Your task to perform on an android device: turn on priority inbox in the gmail app Image 0: 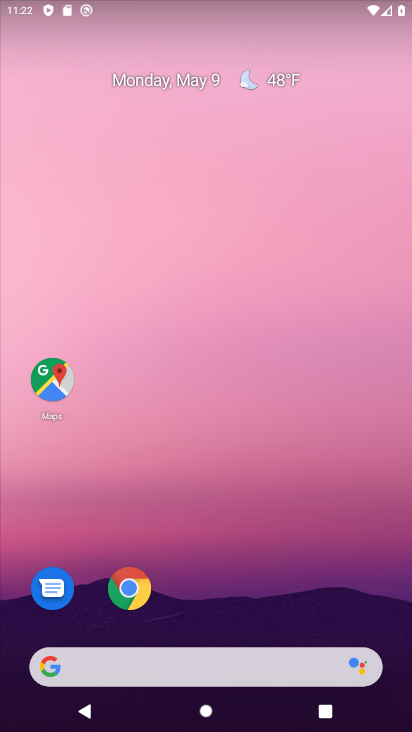
Step 0: click (317, 262)
Your task to perform on an android device: turn on priority inbox in the gmail app Image 1: 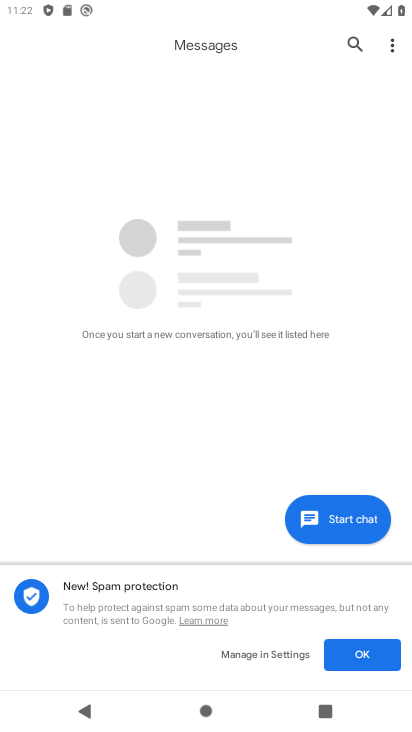
Step 1: press home button
Your task to perform on an android device: turn on priority inbox in the gmail app Image 2: 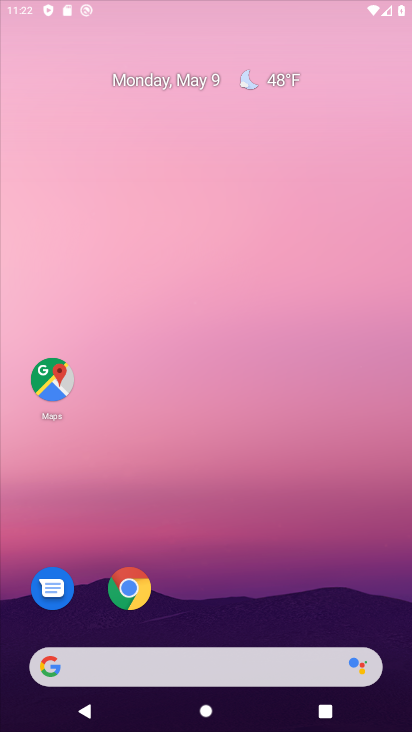
Step 2: drag from (225, 542) to (231, 261)
Your task to perform on an android device: turn on priority inbox in the gmail app Image 3: 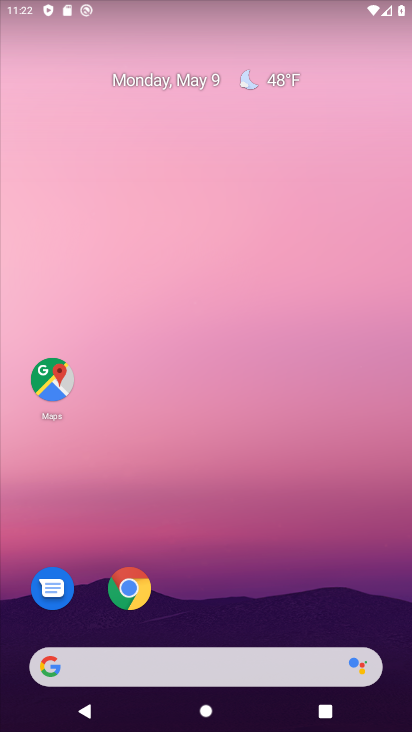
Step 3: drag from (258, 592) to (261, 153)
Your task to perform on an android device: turn on priority inbox in the gmail app Image 4: 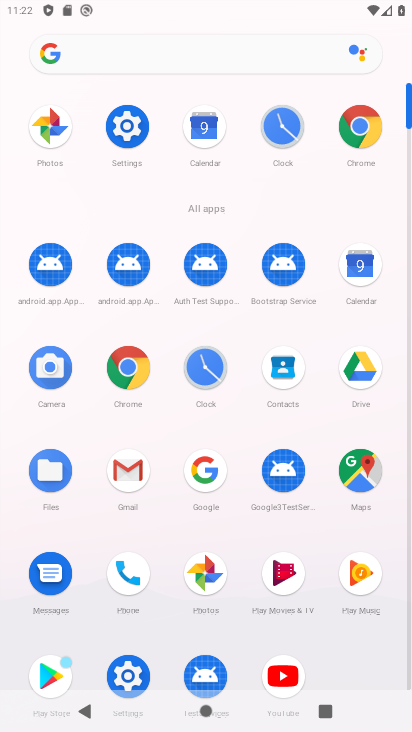
Step 4: click (139, 471)
Your task to perform on an android device: turn on priority inbox in the gmail app Image 5: 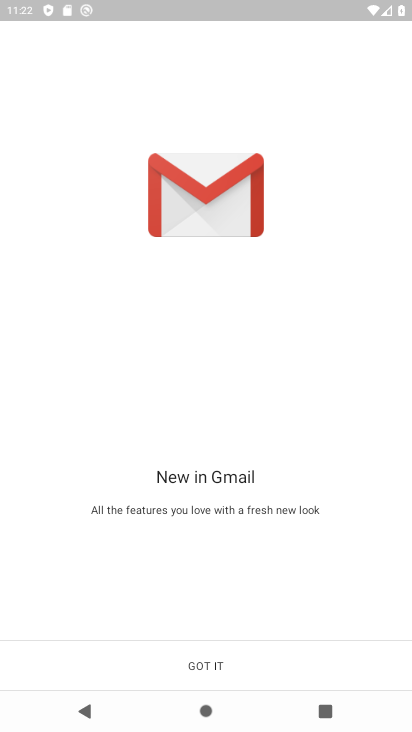
Step 5: click (174, 657)
Your task to perform on an android device: turn on priority inbox in the gmail app Image 6: 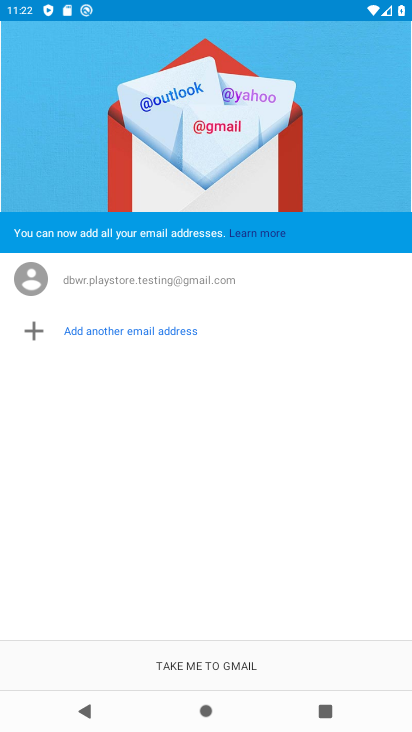
Step 6: click (143, 670)
Your task to perform on an android device: turn on priority inbox in the gmail app Image 7: 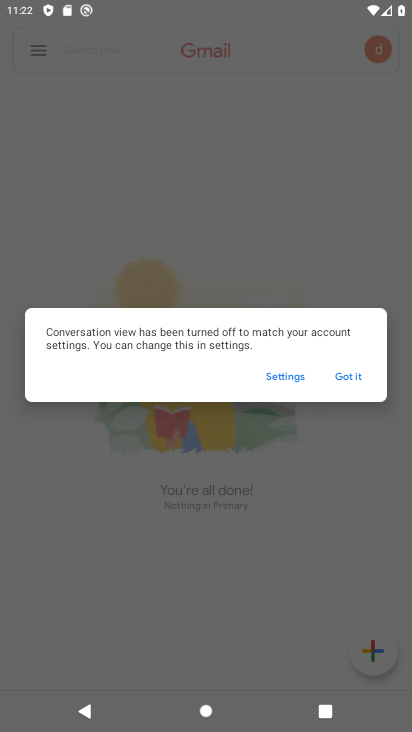
Step 7: click (364, 380)
Your task to perform on an android device: turn on priority inbox in the gmail app Image 8: 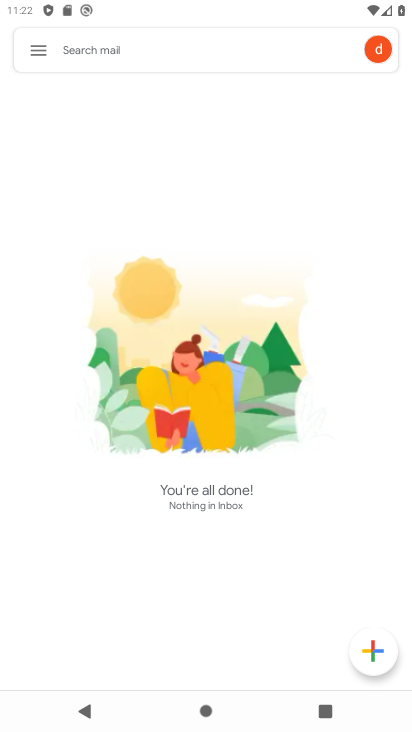
Step 8: click (21, 30)
Your task to perform on an android device: turn on priority inbox in the gmail app Image 9: 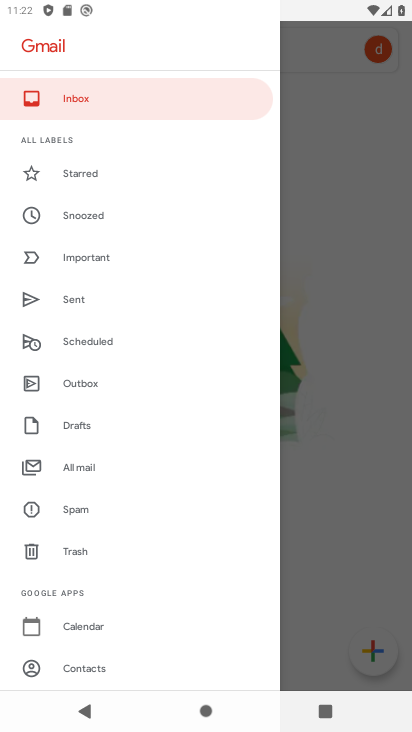
Step 9: drag from (156, 655) to (162, 105)
Your task to perform on an android device: turn on priority inbox in the gmail app Image 10: 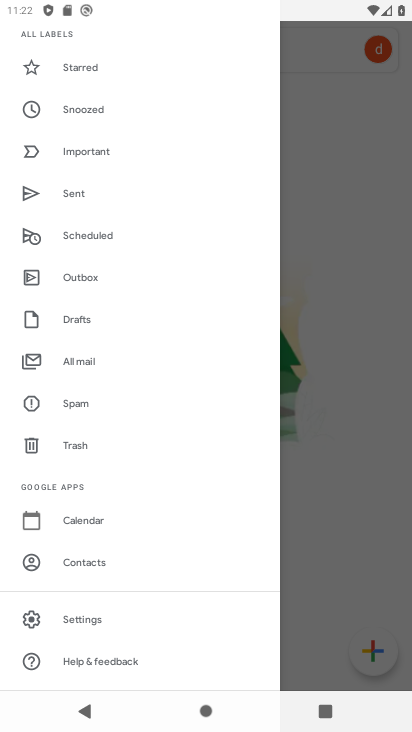
Step 10: click (145, 605)
Your task to perform on an android device: turn on priority inbox in the gmail app Image 11: 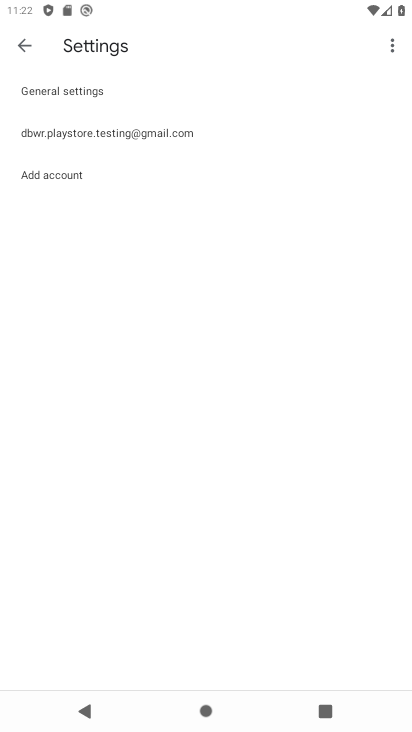
Step 11: click (139, 128)
Your task to perform on an android device: turn on priority inbox in the gmail app Image 12: 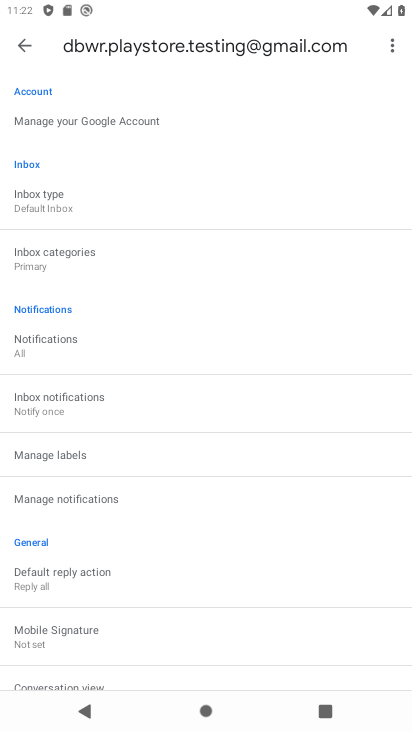
Step 12: click (72, 208)
Your task to perform on an android device: turn on priority inbox in the gmail app Image 13: 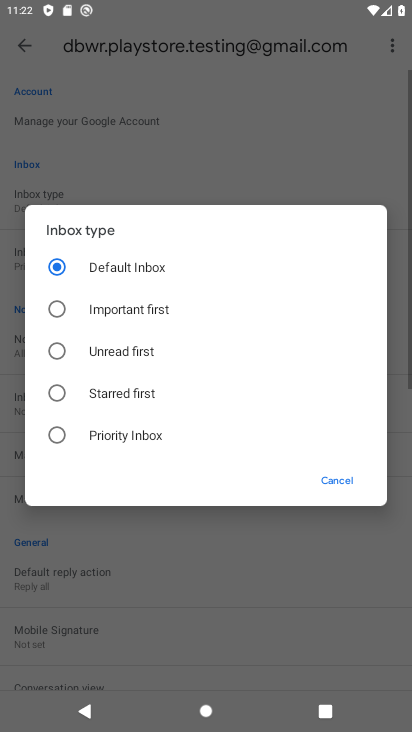
Step 13: click (150, 430)
Your task to perform on an android device: turn on priority inbox in the gmail app Image 14: 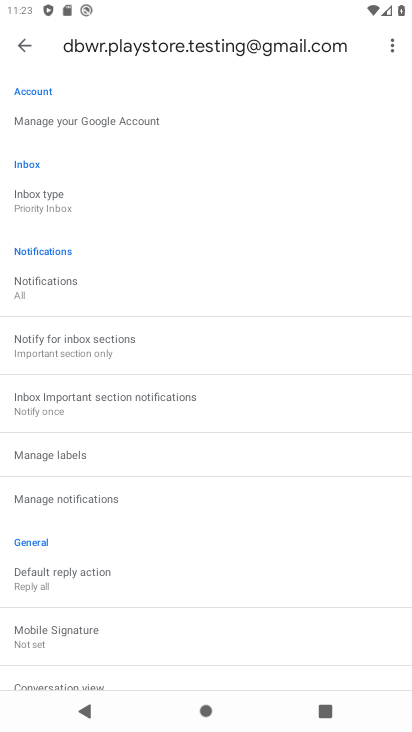
Step 14: task complete